Your task to perform on an android device: open sync settings in chrome Image 0: 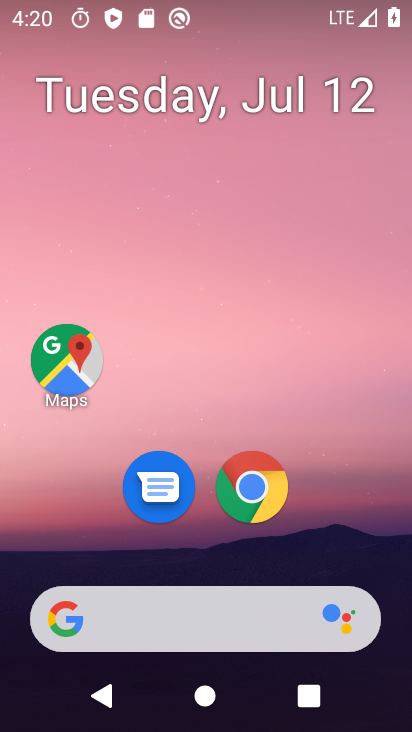
Step 0: drag from (243, 634) to (251, 187)
Your task to perform on an android device: open sync settings in chrome Image 1: 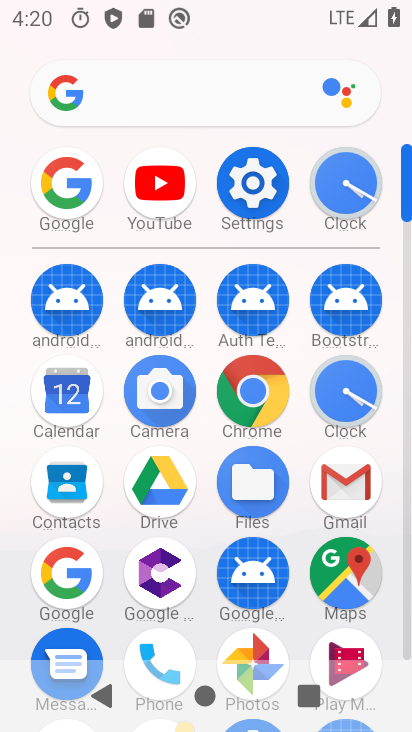
Step 1: click (232, 393)
Your task to perform on an android device: open sync settings in chrome Image 2: 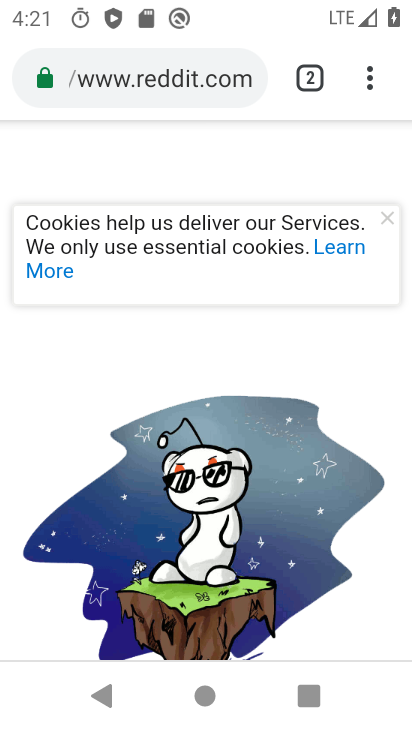
Step 2: click (364, 85)
Your task to perform on an android device: open sync settings in chrome Image 3: 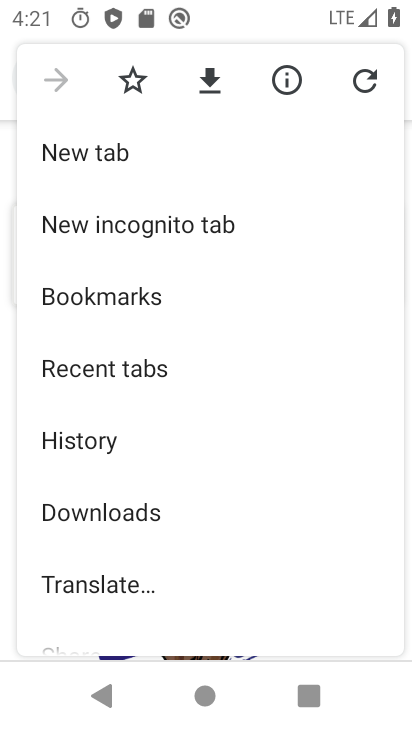
Step 3: drag from (79, 574) to (198, 112)
Your task to perform on an android device: open sync settings in chrome Image 4: 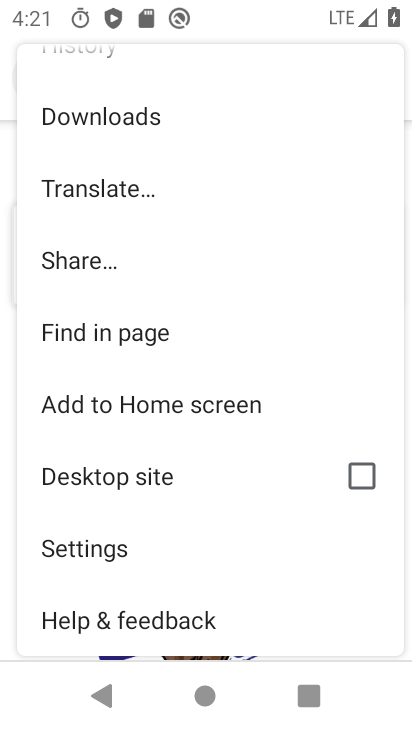
Step 4: click (106, 553)
Your task to perform on an android device: open sync settings in chrome Image 5: 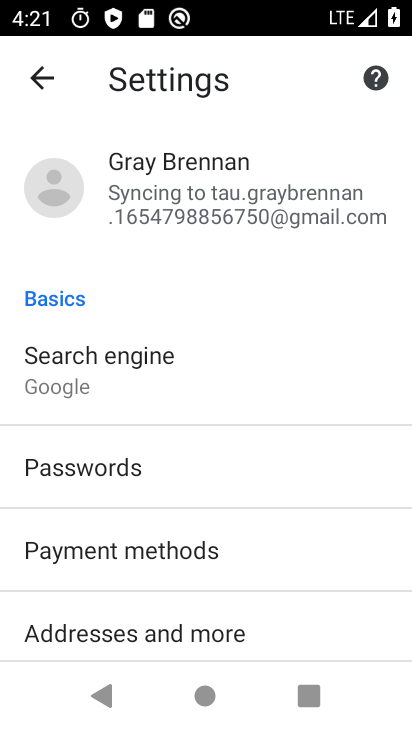
Step 5: click (208, 201)
Your task to perform on an android device: open sync settings in chrome Image 6: 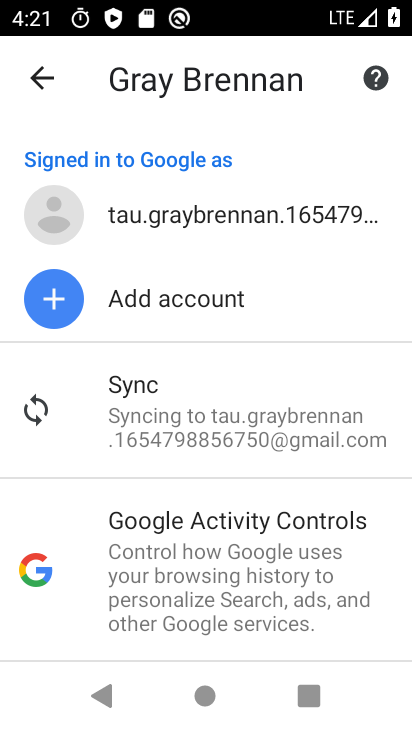
Step 6: click (191, 421)
Your task to perform on an android device: open sync settings in chrome Image 7: 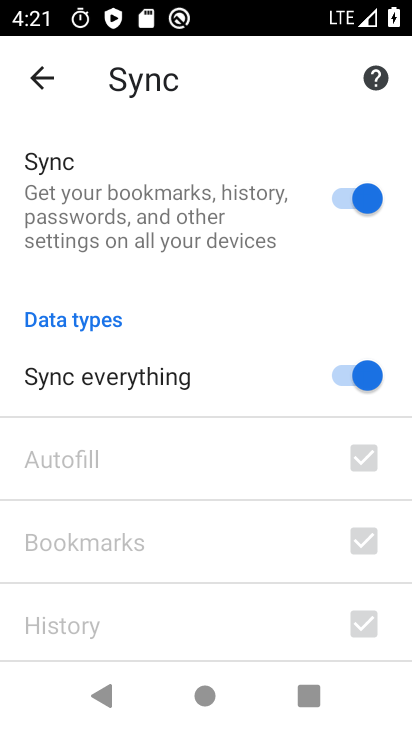
Step 7: task complete